Your task to perform on an android device: Open Amazon Image 0: 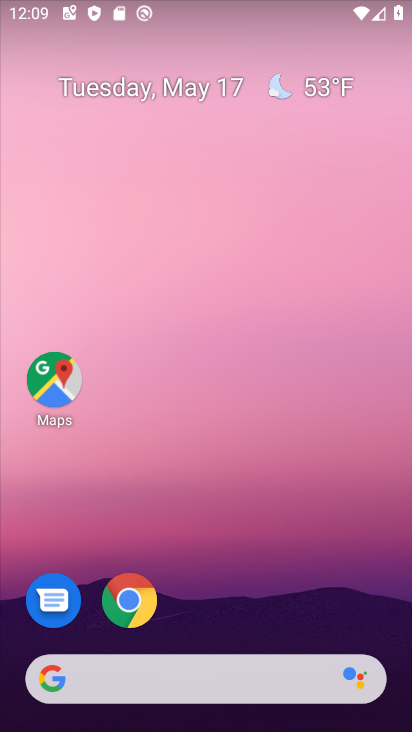
Step 0: drag from (226, 548) to (205, 181)
Your task to perform on an android device: Open Amazon Image 1: 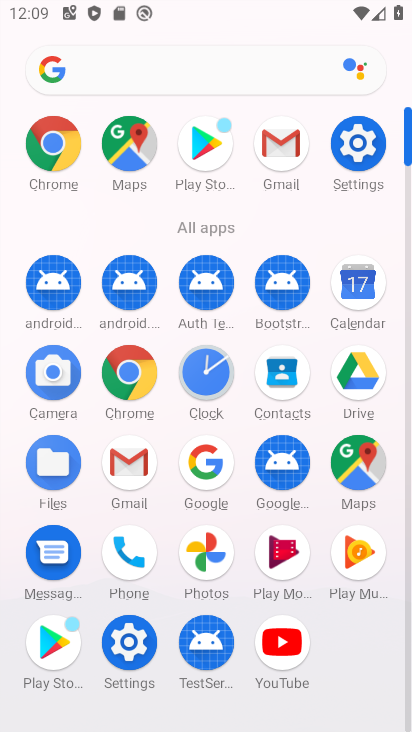
Step 1: click (48, 131)
Your task to perform on an android device: Open Amazon Image 2: 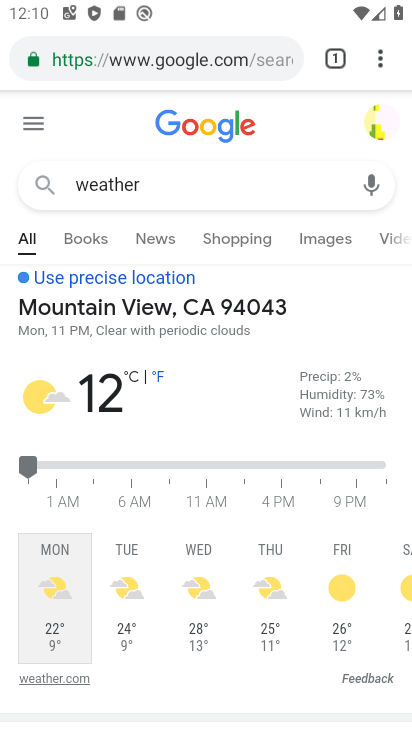
Step 2: click (338, 50)
Your task to perform on an android device: Open Amazon Image 3: 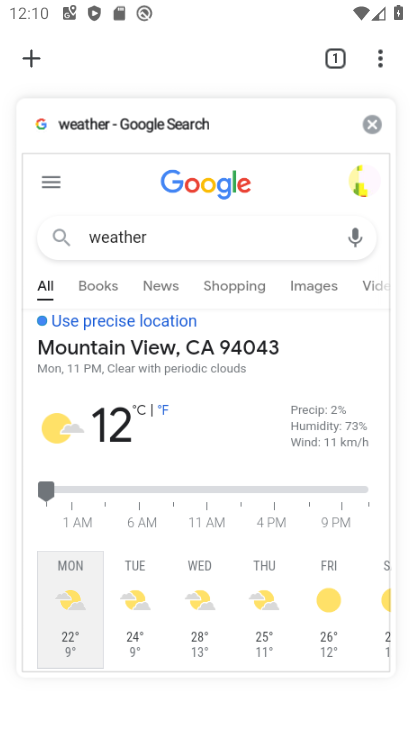
Step 3: click (30, 53)
Your task to perform on an android device: Open Amazon Image 4: 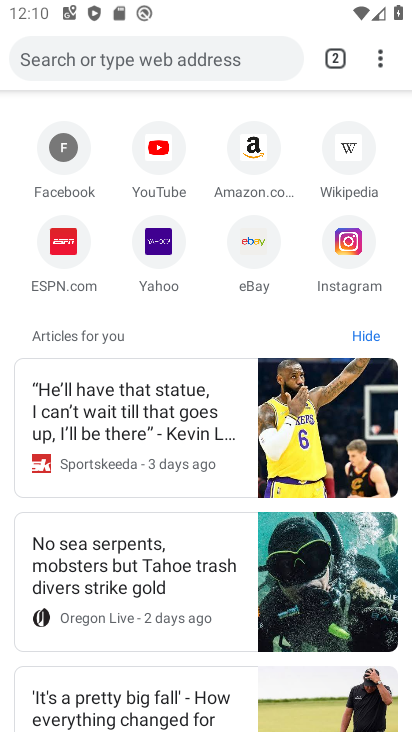
Step 4: click (257, 143)
Your task to perform on an android device: Open Amazon Image 5: 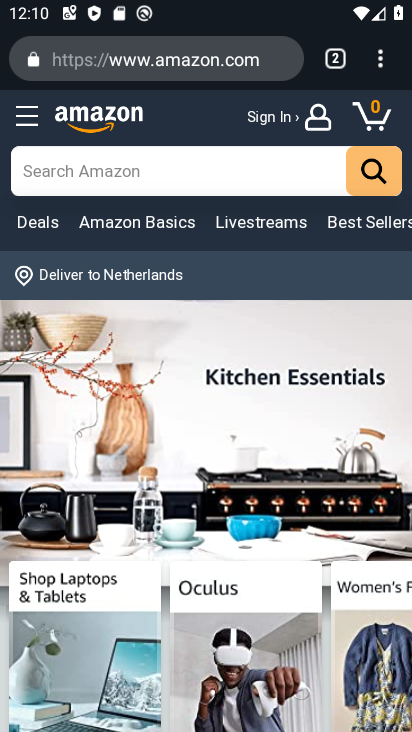
Step 5: task complete